Your task to perform on an android device: What's on my calendar today? Image 0: 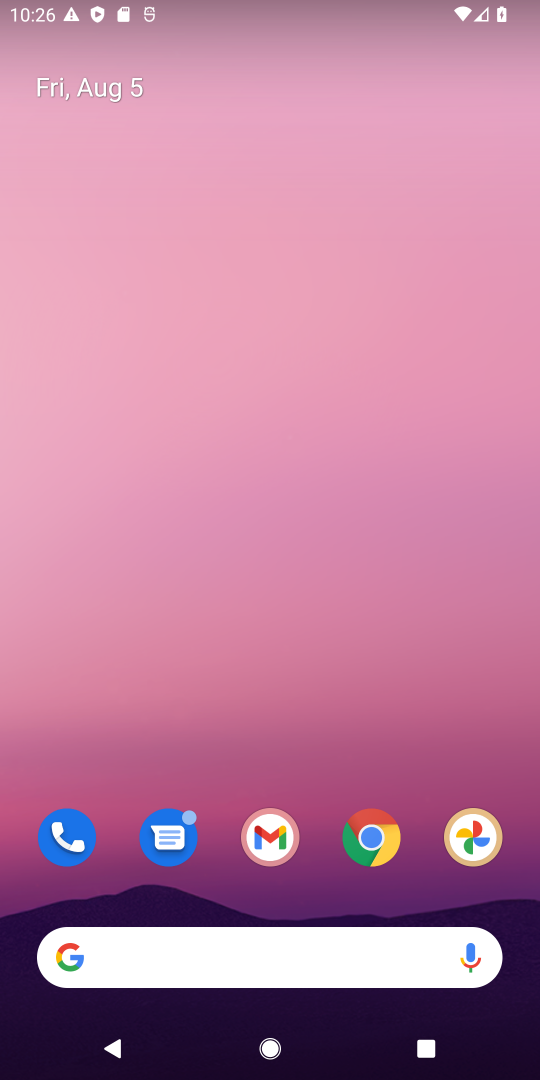
Step 0: drag from (261, 400) to (311, 0)
Your task to perform on an android device: What's on my calendar today? Image 1: 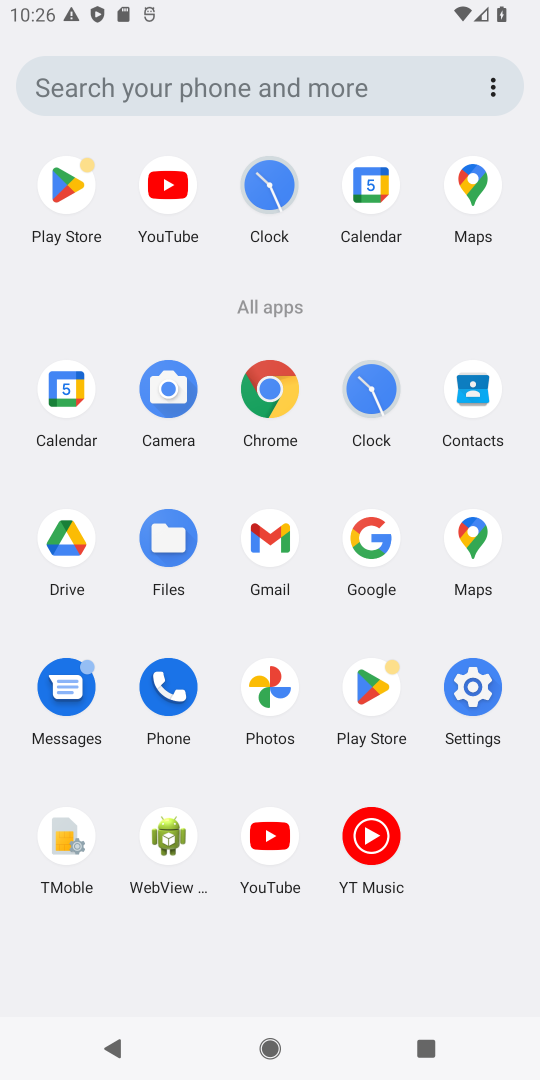
Step 1: click (67, 378)
Your task to perform on an android device: What's on my calendar today? Image 2: 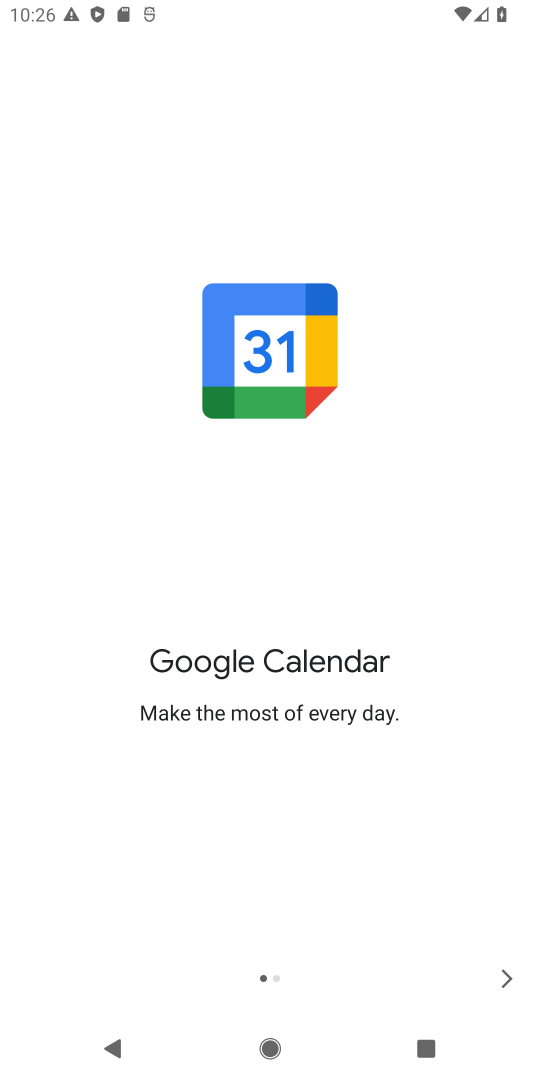
Step 2: click (507, 977)
Your task to perform on an android device: What's on my calendar today? Image 3: 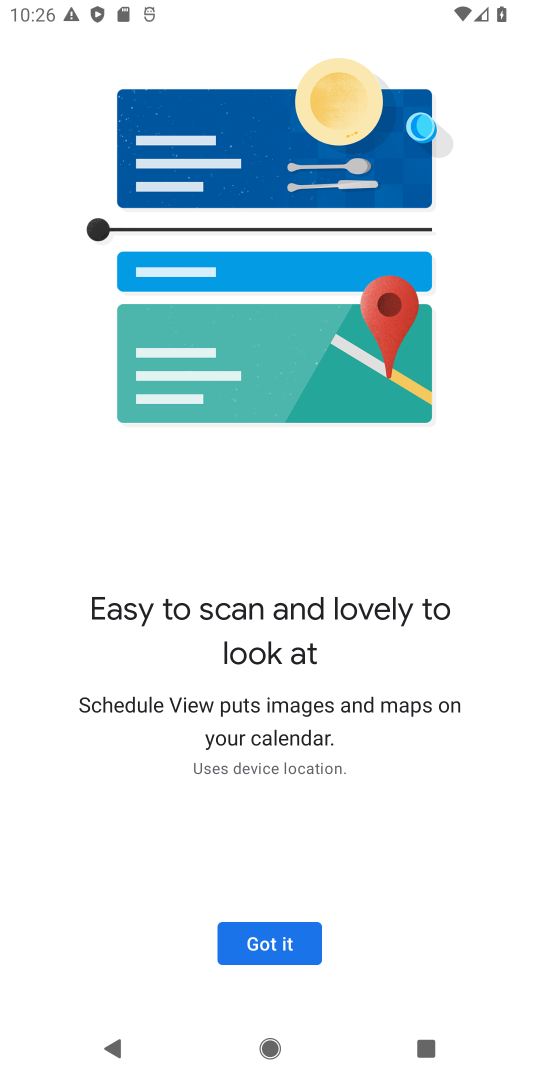
Step 3: click (303, 940)
Your task to perform on an android device: What's on my calendar today? Image 4: 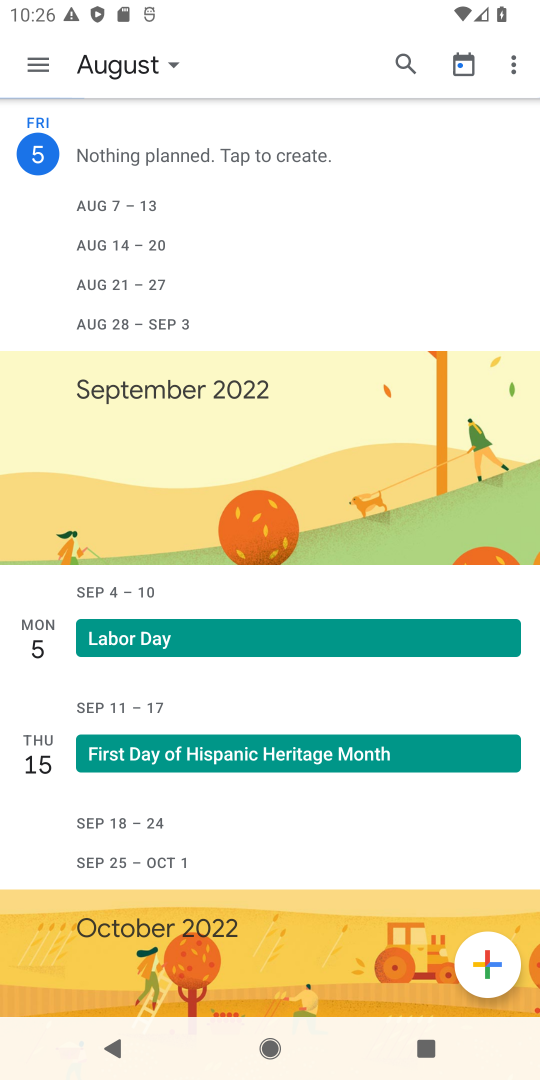
Step 4: click (303, 940)
Your task to perform on an android device: What's on my calendar today? Image 5: 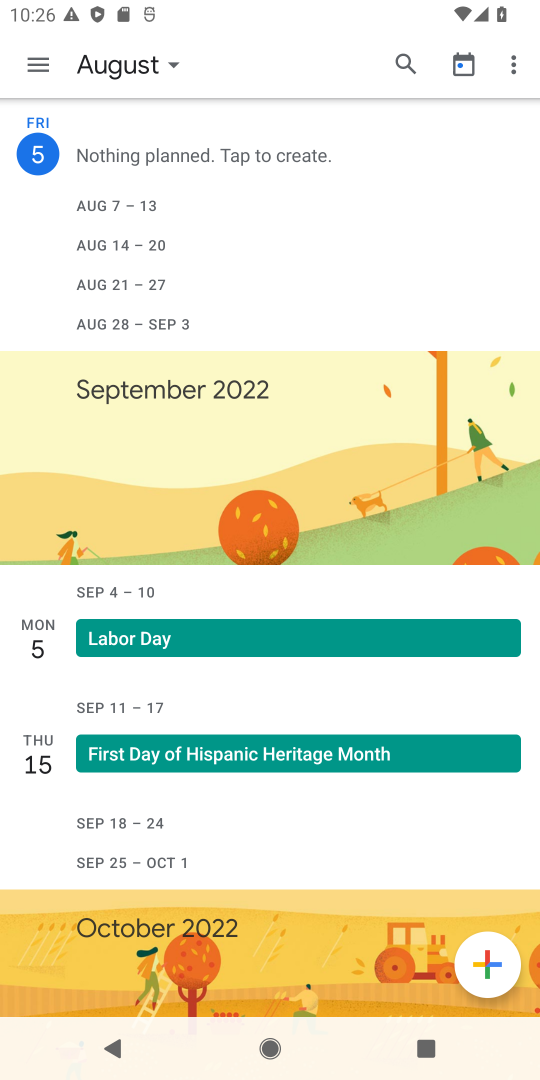
Step 5: task complete